Your task to perform on an android device: Show me productivity apps on the Play Store Image 0: 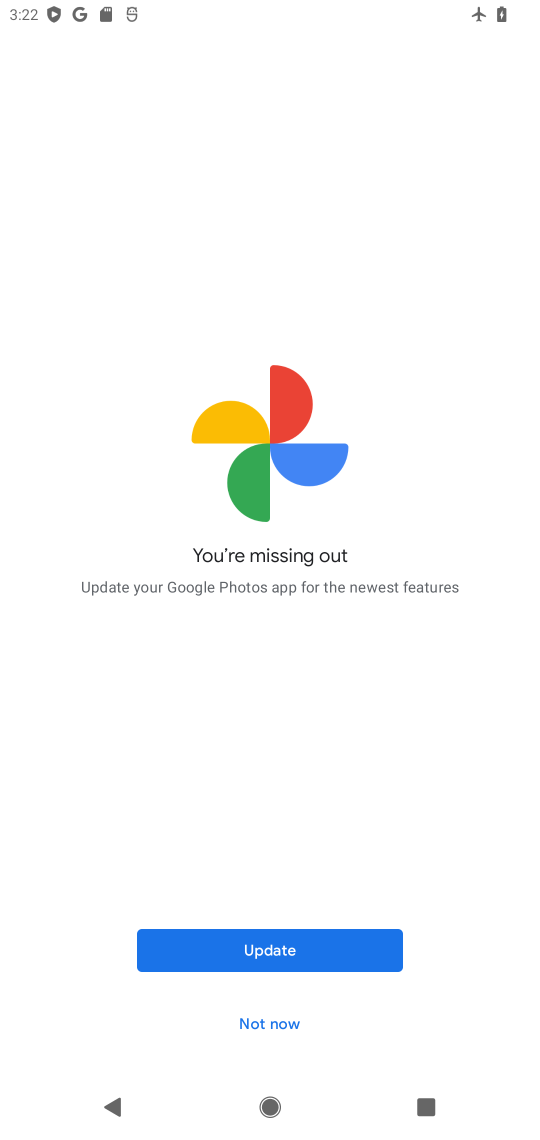
Step 0: press home button
Your task to perform on an android device: Show me productivity apps on the Play Store Image 1: 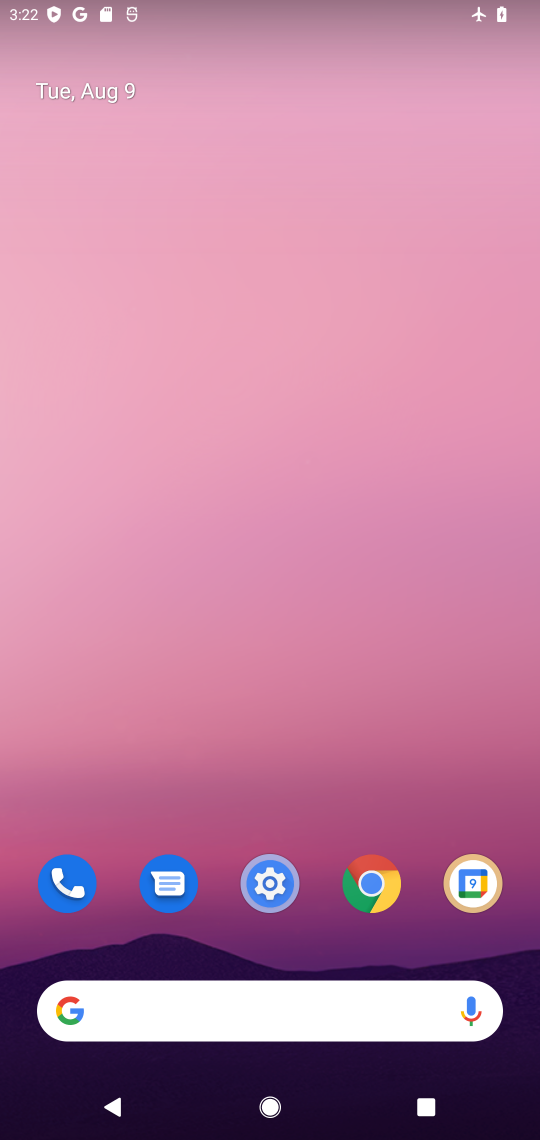
Step 1: drag from (423, 953) to (408, 148)
Your task to perform on an android device: Show me productivity apps on the Play Store Image 2: 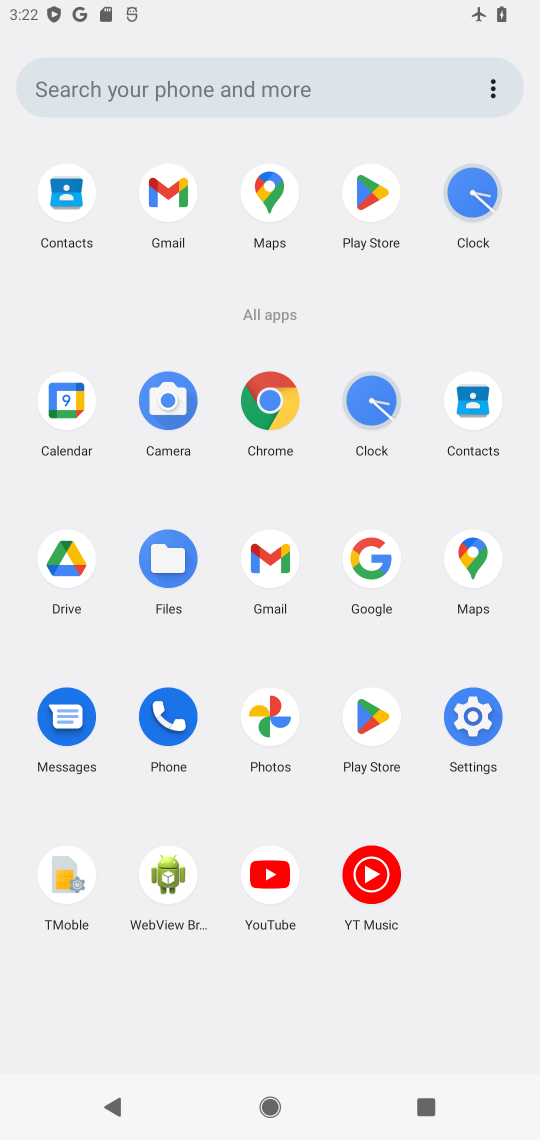
Step 2: click (371, 713)
Your task to perform on an android device: Show me productivity apps on the Play Store Image 3: 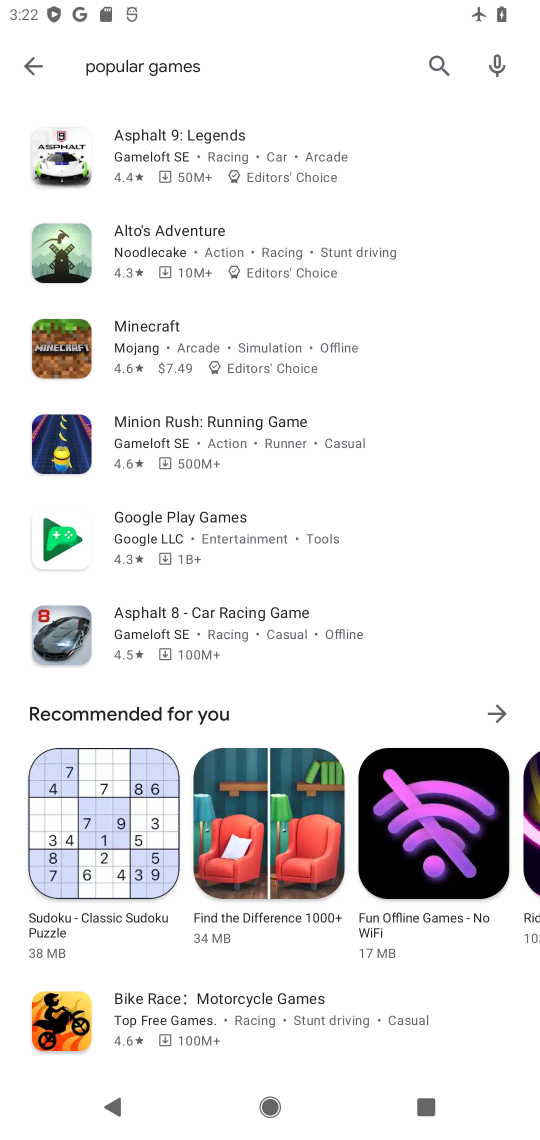
Step 3: press back button
Your task to perform on an android device: Show me productivity apps on the Play Store Image 4: 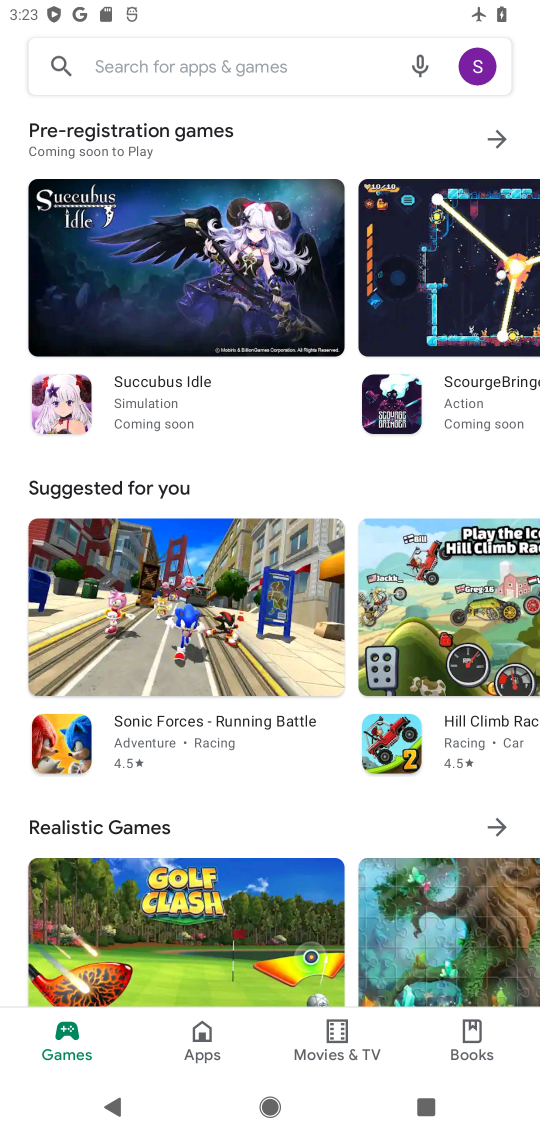
Step 4: click (209, 1041)
Your task to perform on an android device: Show me productivity apps on the Play Store Image 5: 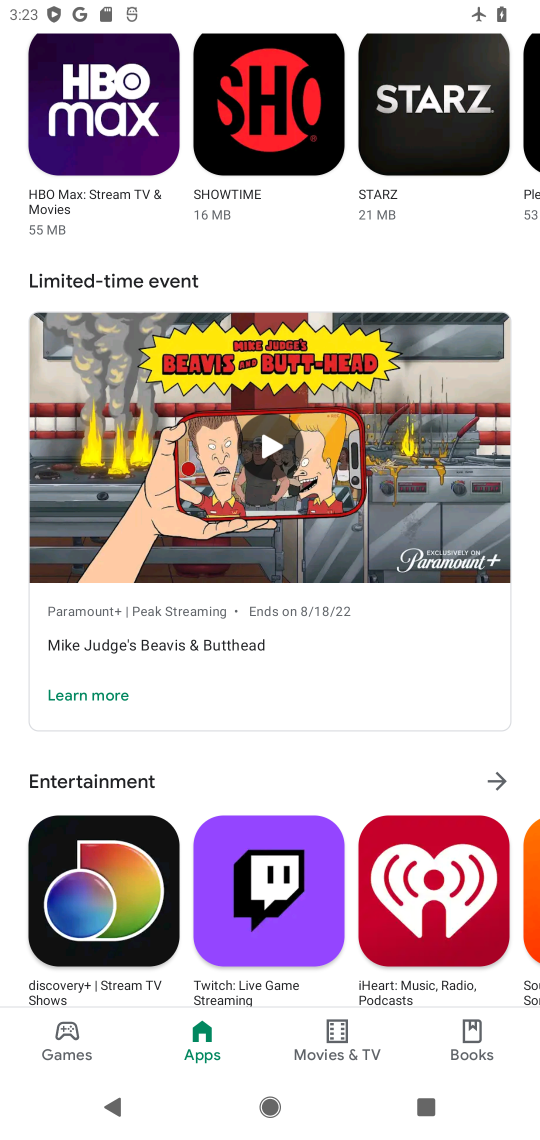
Step 5: drag from (355, 286) to (367, 600)
Your task to perform on an android device: Show me productivity apps on the Play Store Image 6: 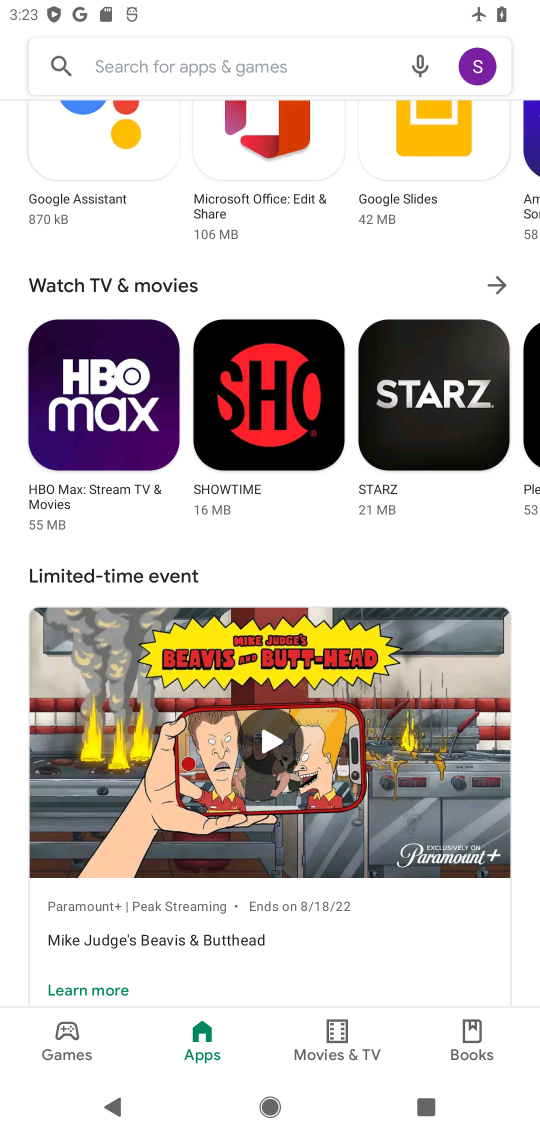
Step 6: drag from (355, 189) to (374, 592)
Your task to perform on an android device: Show me productivity apps on the Play Store Image 7: 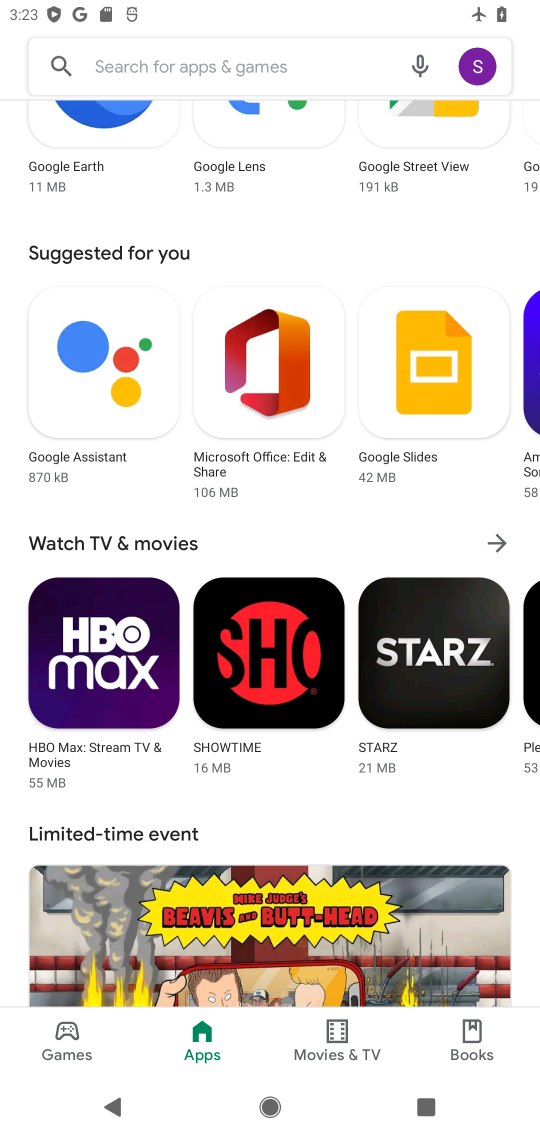
Step 7: drag from (396, 310) to (401, 737)
Your task to perform on an android device: Show me productivity apps on the Play Store Image 8: 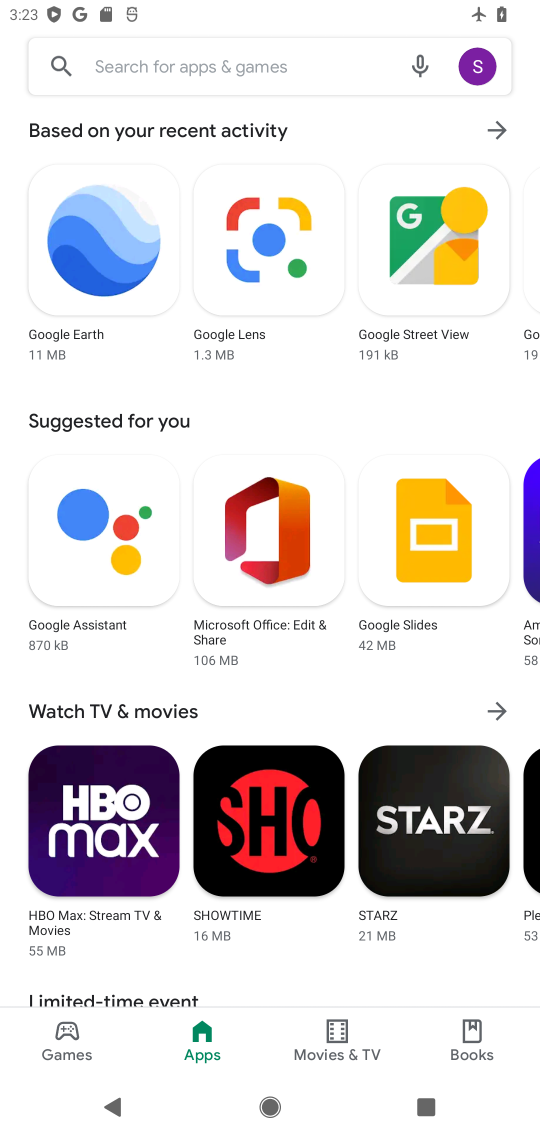
Step 8: drag from (364, 209) to (342, 593)
Your task to perform on an android device: Show me productivity apps on the Play Store Image 9: 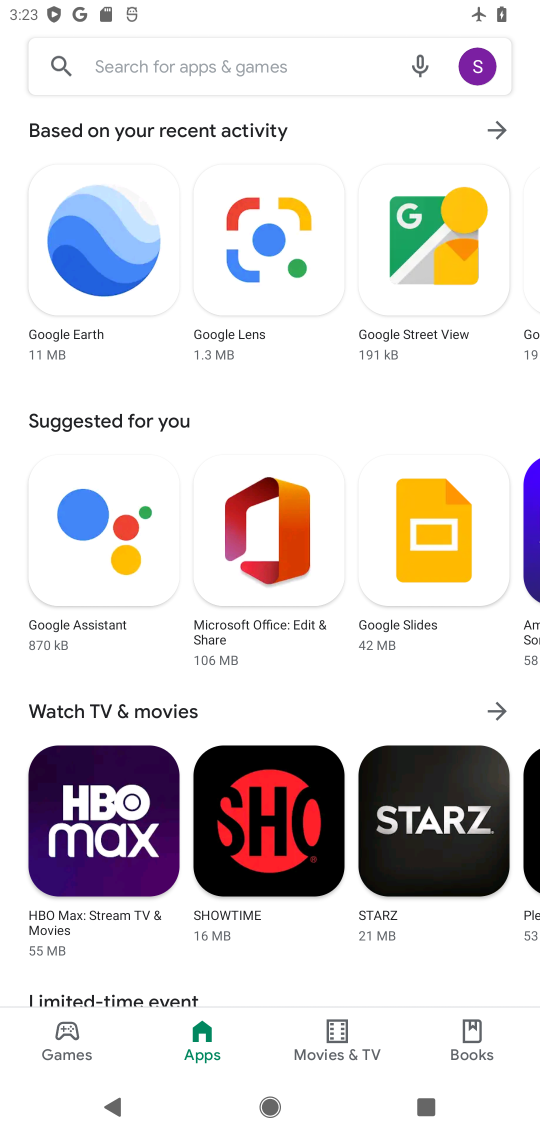
Step 9: drag from (281, 734) to (254, 226)
Your task to perform on an android device: Show me productivity apps on the Play Store Image 10: 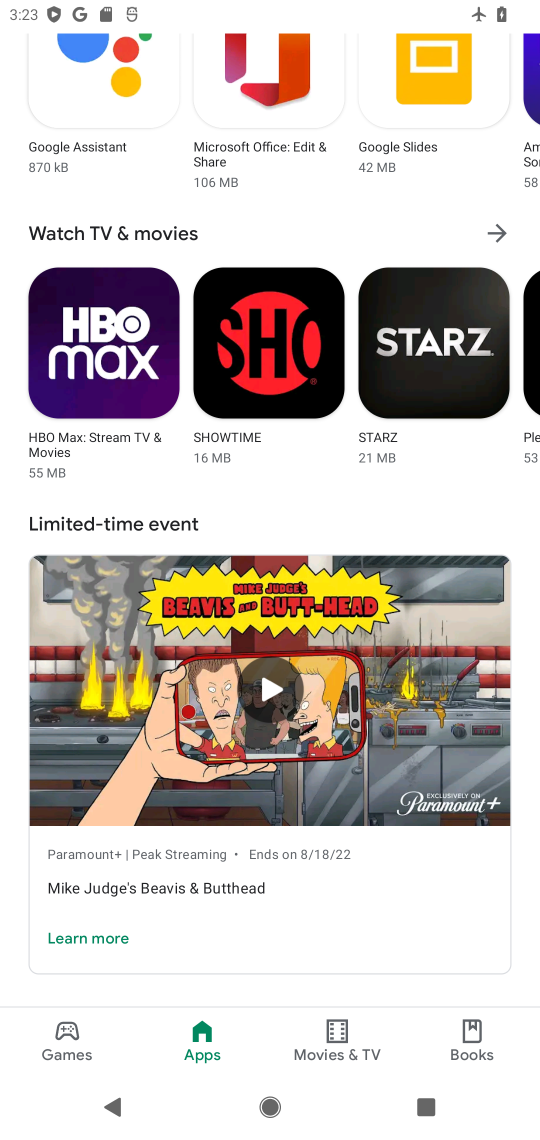
Step 10: drag from (223, 804) to (214, 92)
Your task to perform on an android device: Show me productivity apps on the Play Store Image 11: 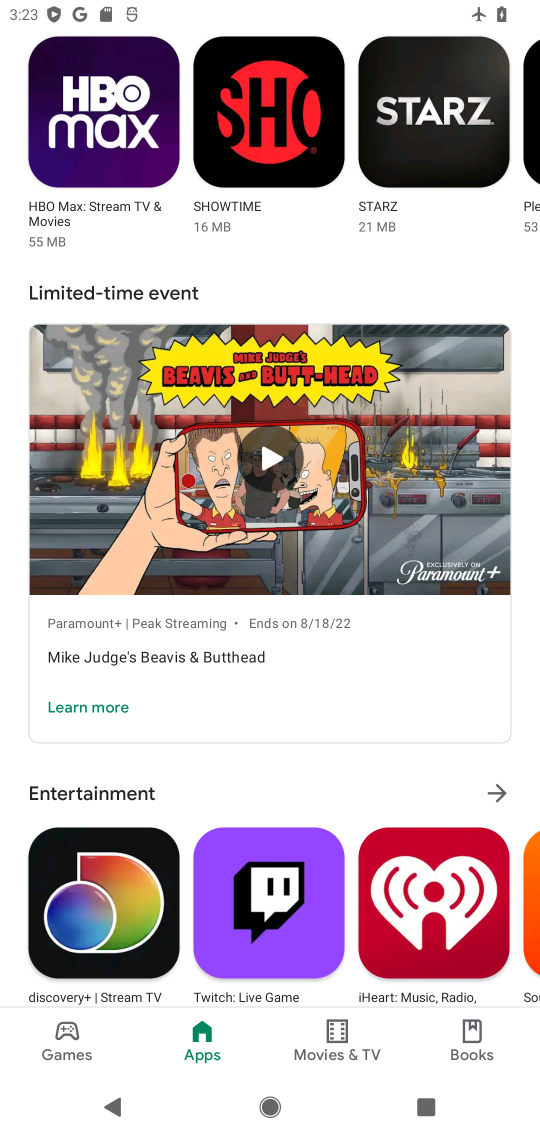
Step 11: drag from (336, 791) to (310, 81)
Your task to perform on an android device: Show me productivity apps on the Play Store Image 12: 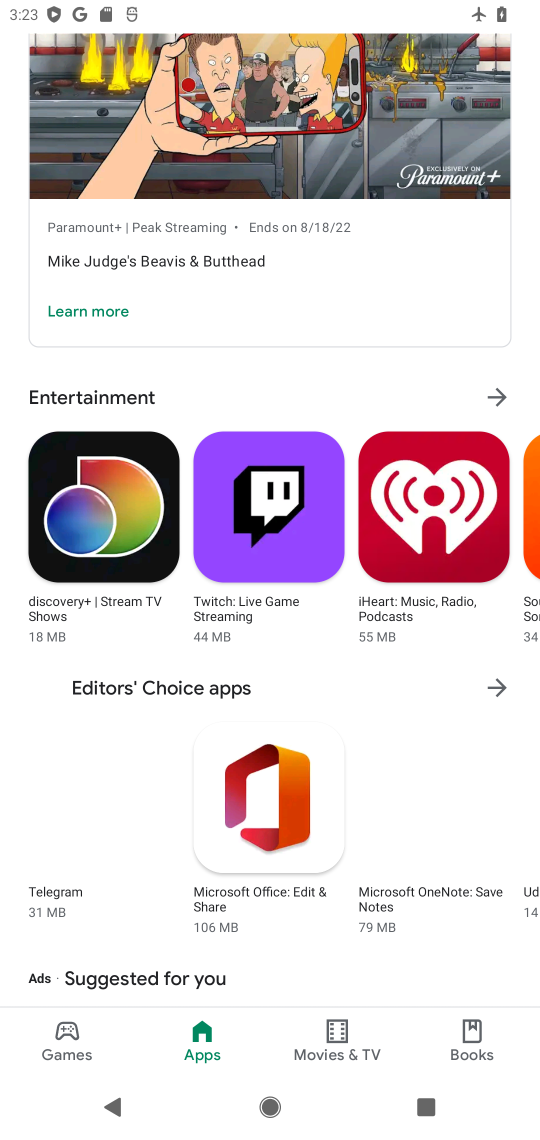
Step 12: drag from (345, 808) to (330, 95)
Your task to perform on an android device: Show me productivity apps on the Play Store Image 13: 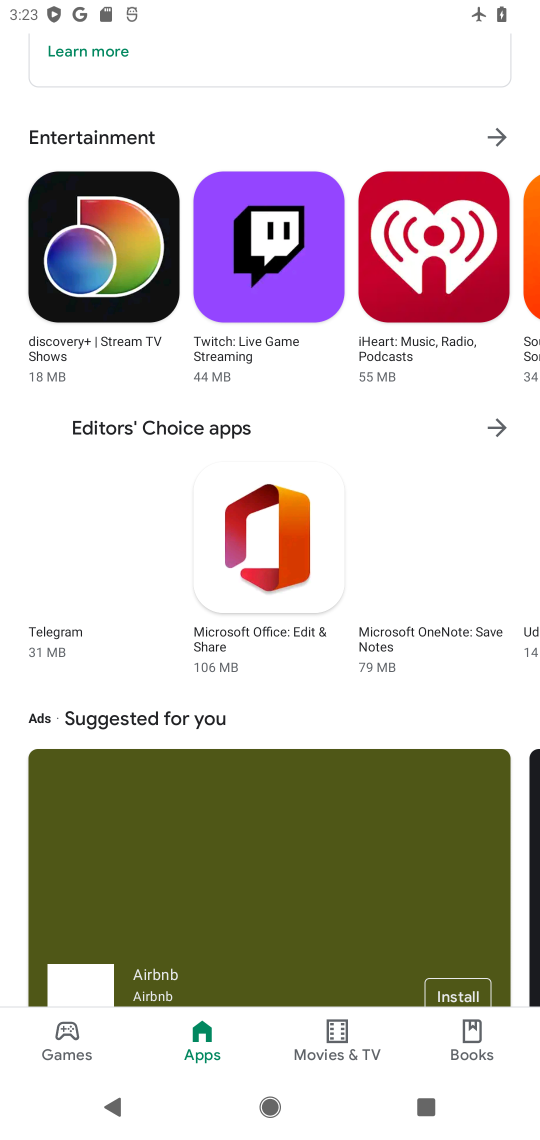
Step 13: drag from (342, 908) to (338, 251)
Your task to perform on an android device: Show me productivity apps on the Play Store Image 14: 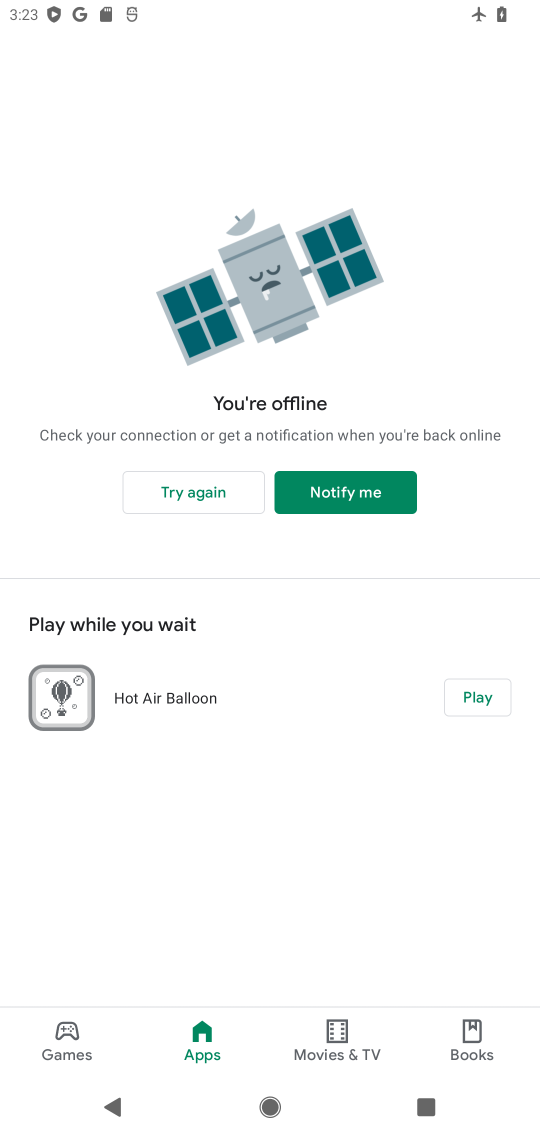
Step 14: click (213, 493)
Your task to perform on an android device: Show me productivity apps on the Play Store Image 15: 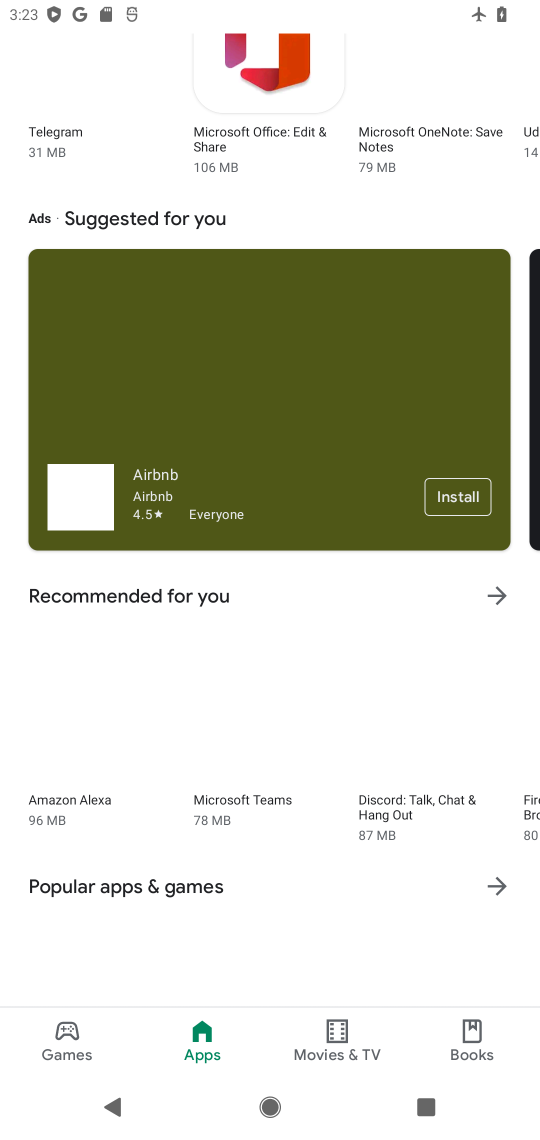
Step 15: drag from (370, 924) to (341, 350)
Your task to perform on an android device: Show me productivity apps on the Play Store Image 16: 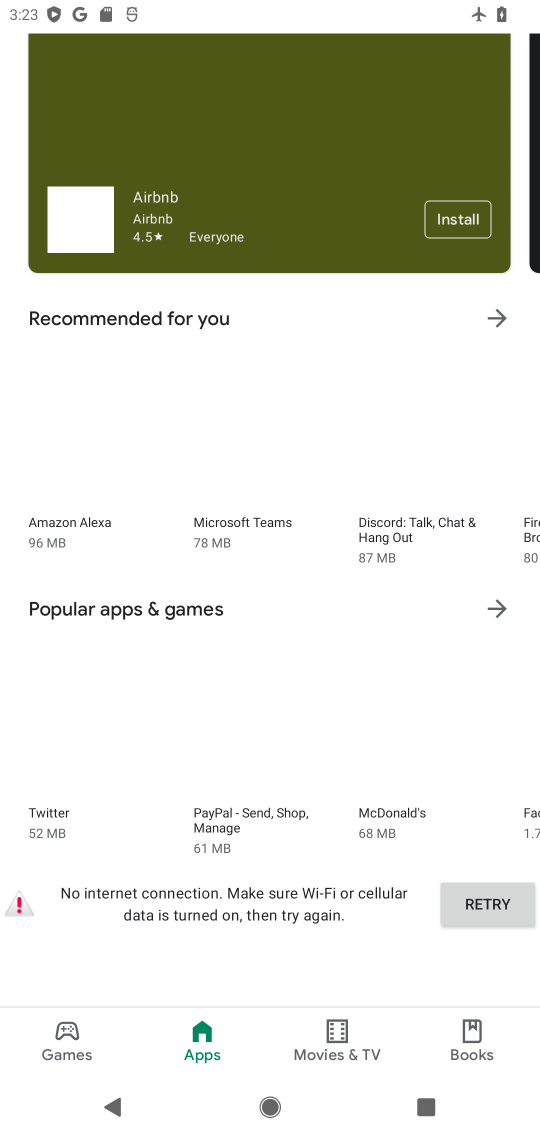
Step 16: click (474, 903)
Your task to perform on an android device: Show me productivity apps on the Play Store Image 17: 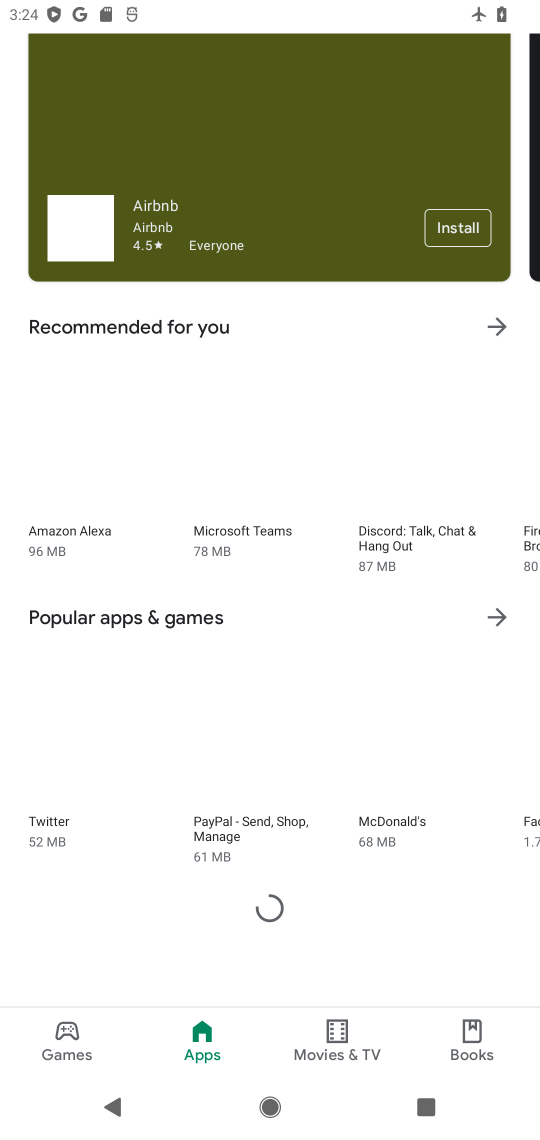
Step 17: task complete